Your task to perform on an android device: toggle notification dots Image 0: 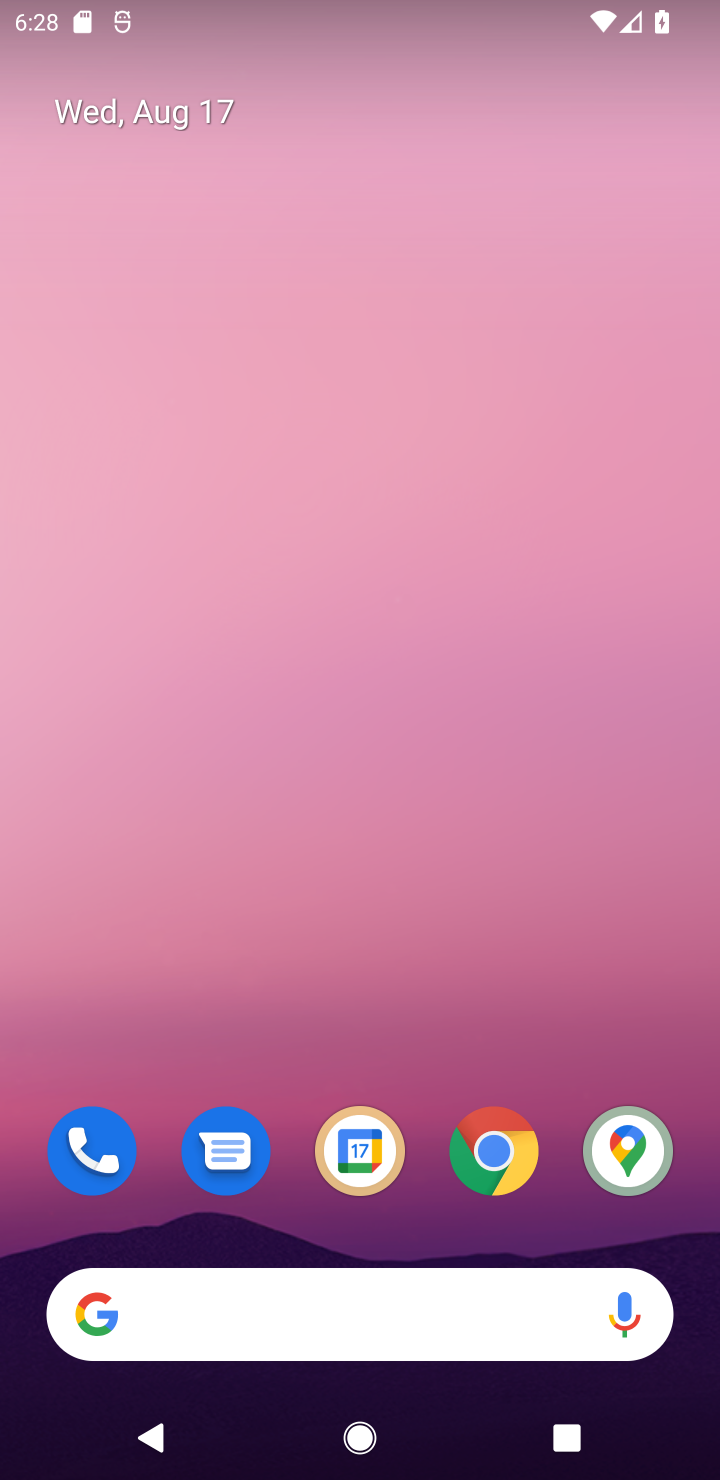
Step 0: drag from (433, 1241) to (444, 192)
Your task to perform on an android device: toggle notification dots Image 1: 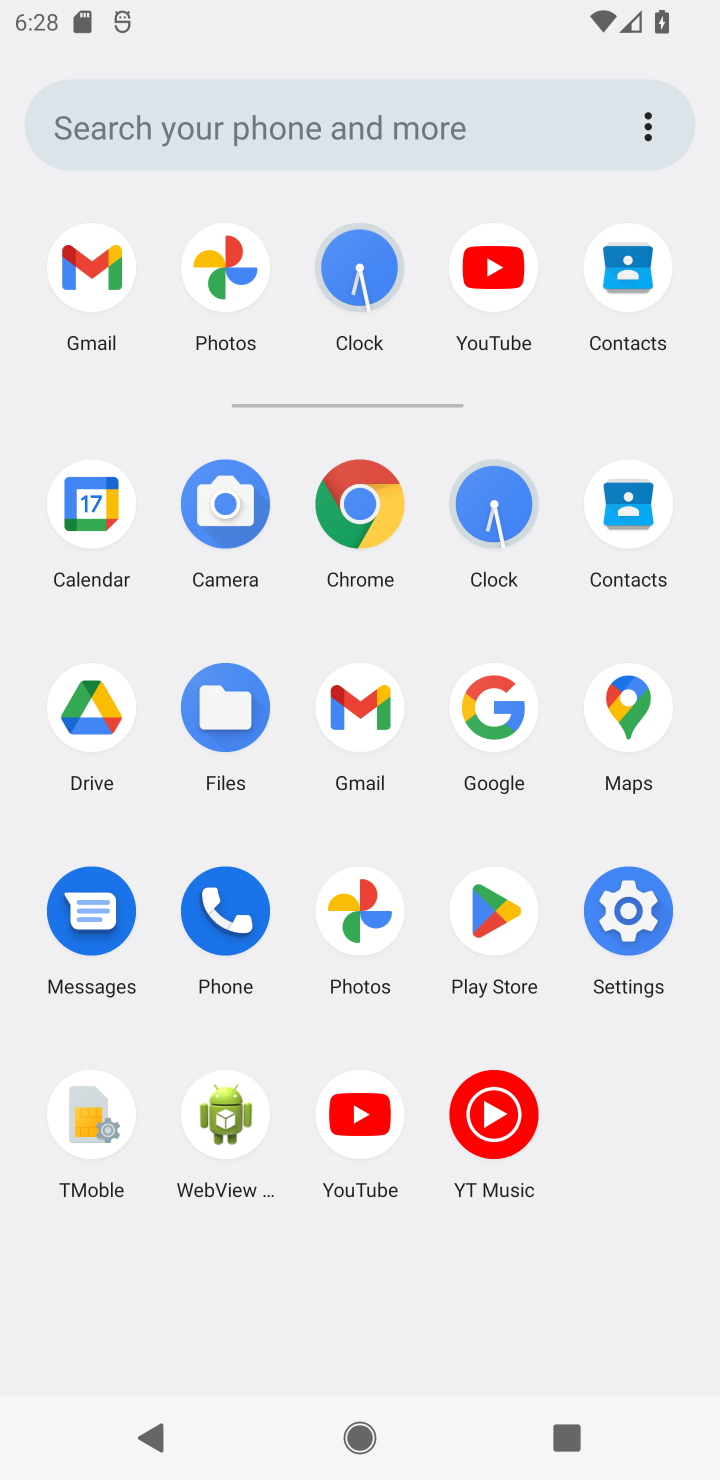
Step 1: click (633, 908)
Your task to perform on an android device: toggle notification dots Image 2: 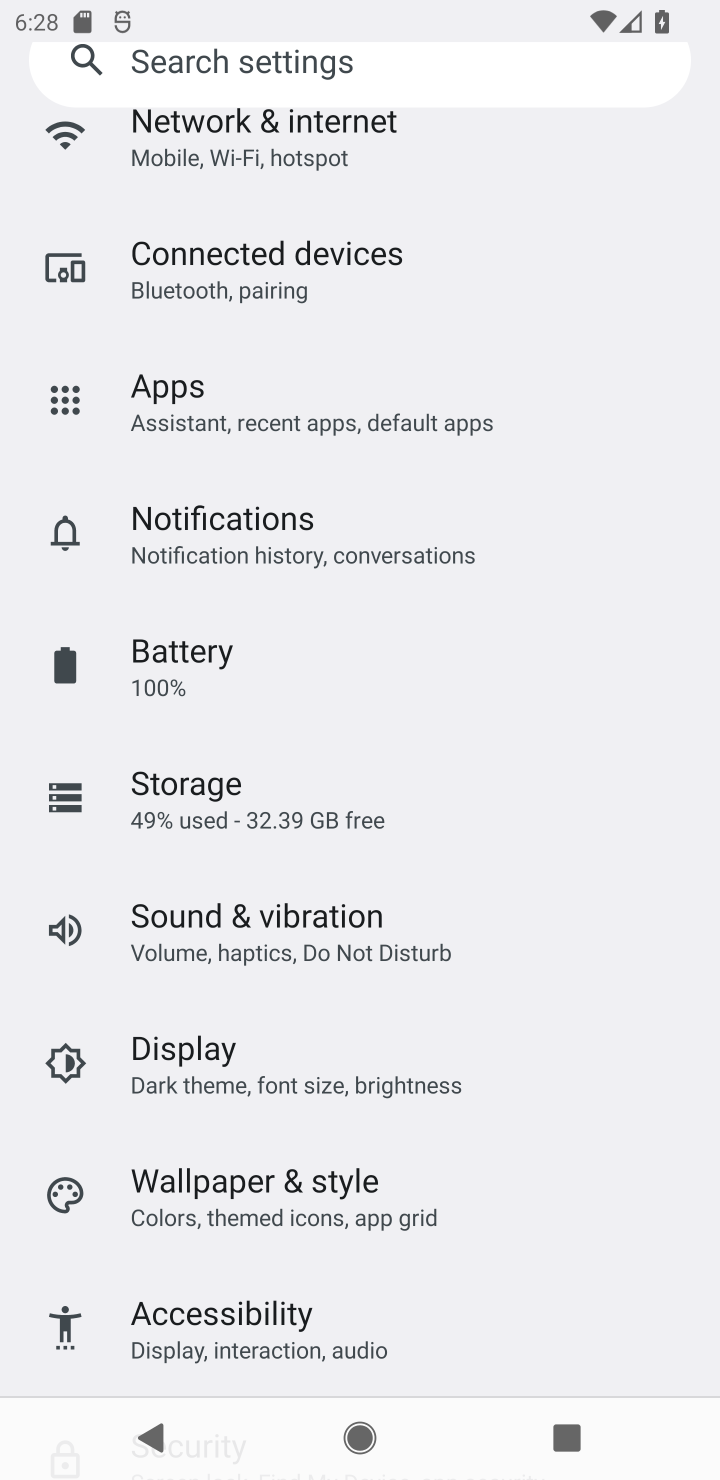
Step 2: click (358, 529)
Your task to perform on an android device: toggle notification dots Image 3: 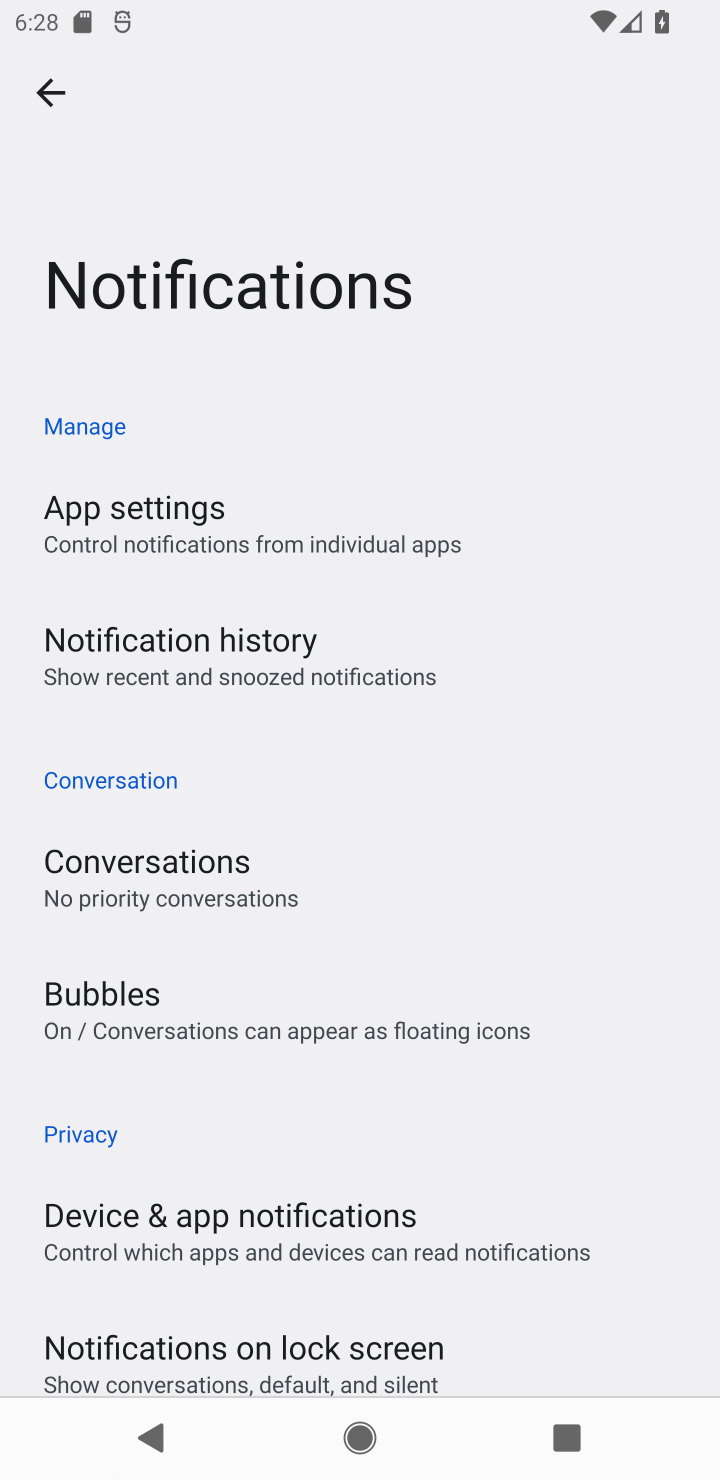
Step 3: click (219, 556)
Your task to perform on an android device: toggle notification dots Image 4: 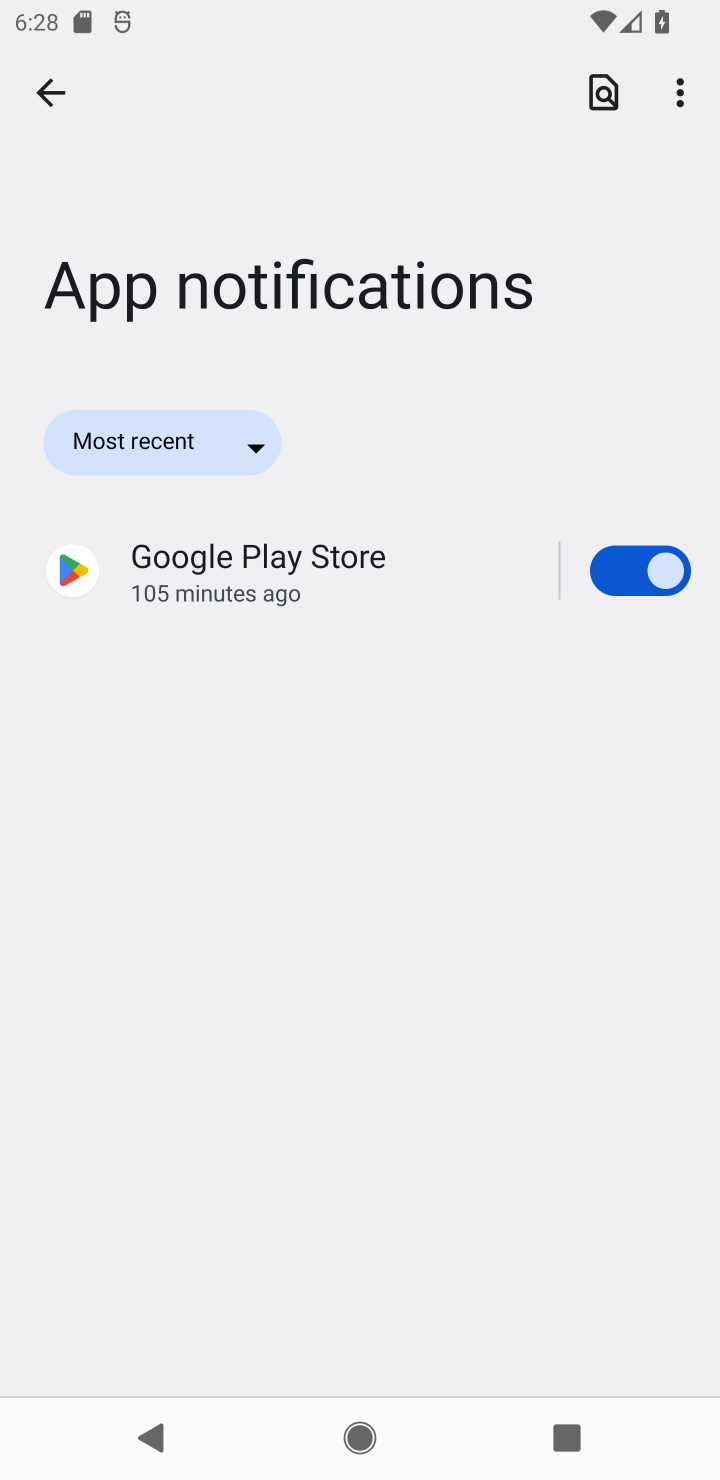
Step 4: task complete